Your task to perform on an android device: open app "Venmo" (install if not already installed) Image 0: 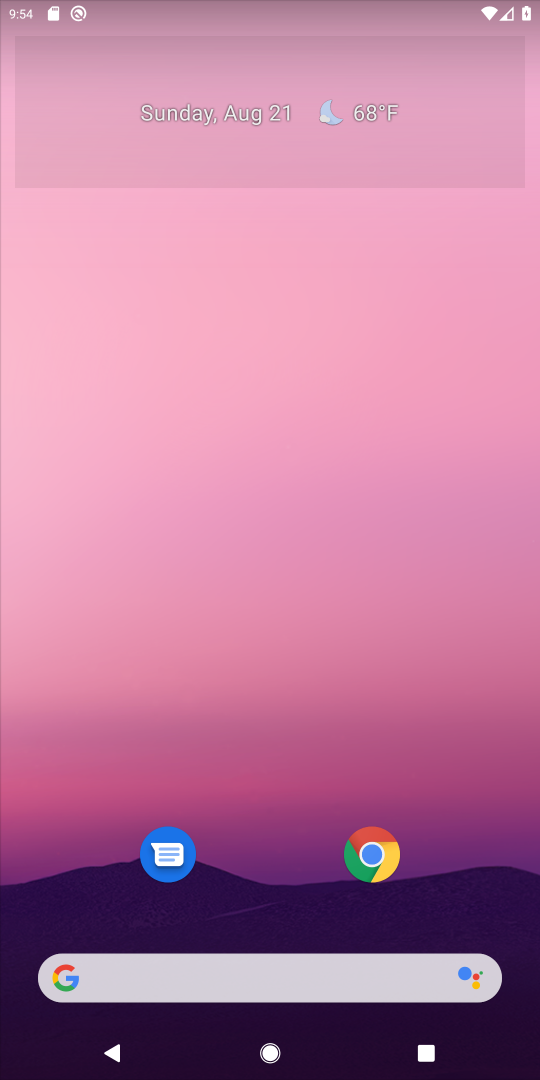
Step 0: drag from (256, 454) to (275, 313)
Your task to perform on an android device: open app "Venmo" (install if not already installed) Image 1: 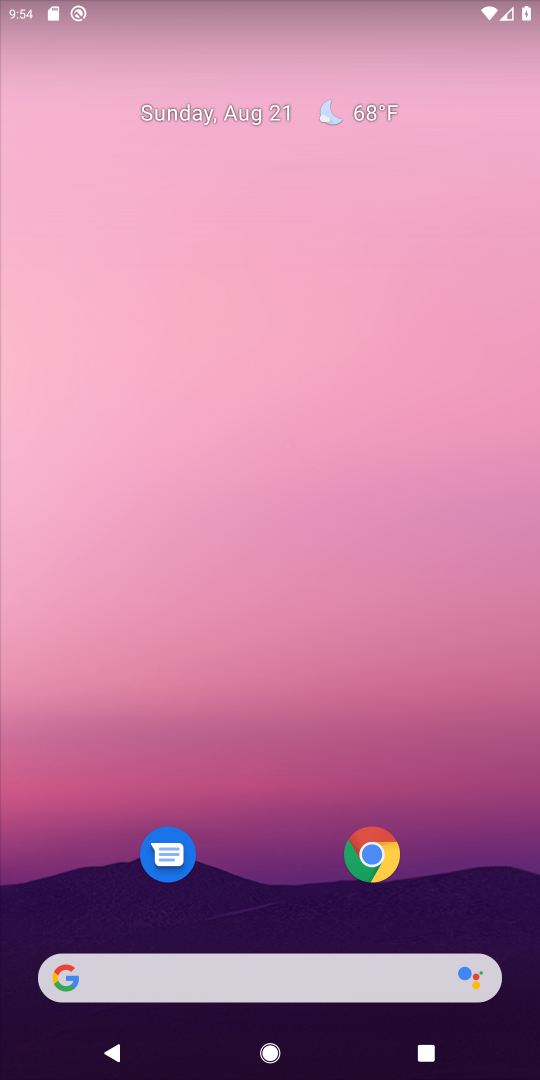
Step 1: drag from (283, 888) to (266, 66)
Your task to perform on an android device: open app "Venmo" (install if not already installed) Image 2: 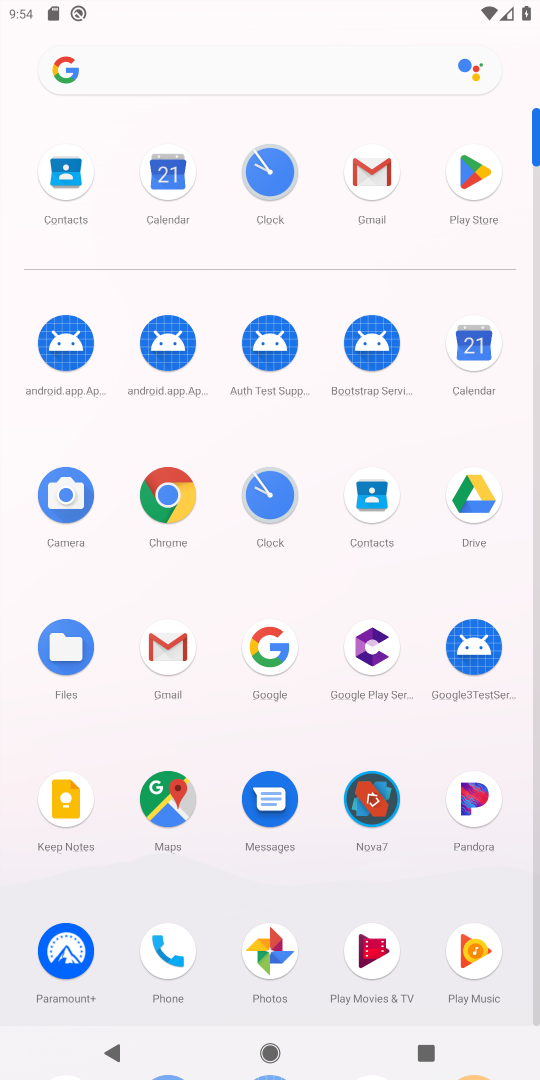
Step 2: click (483, 197)
Your task to perform on an android device: open app "Venmo" (install if not already installed) Image 3: 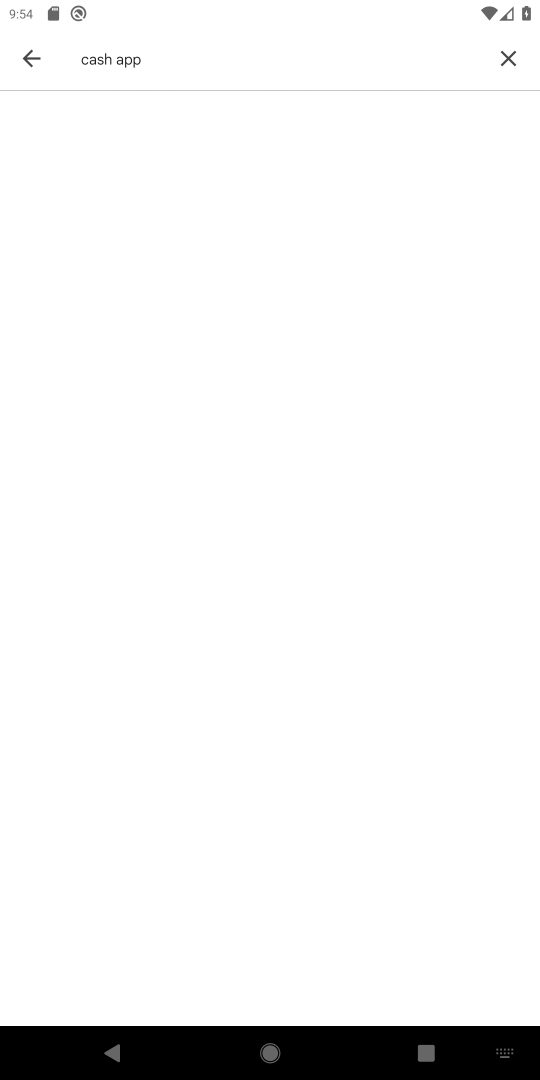
Step 3: click (504, 60)
Your task to perform on an android device: open app "Venmo" (install if not already installed) Image 4: 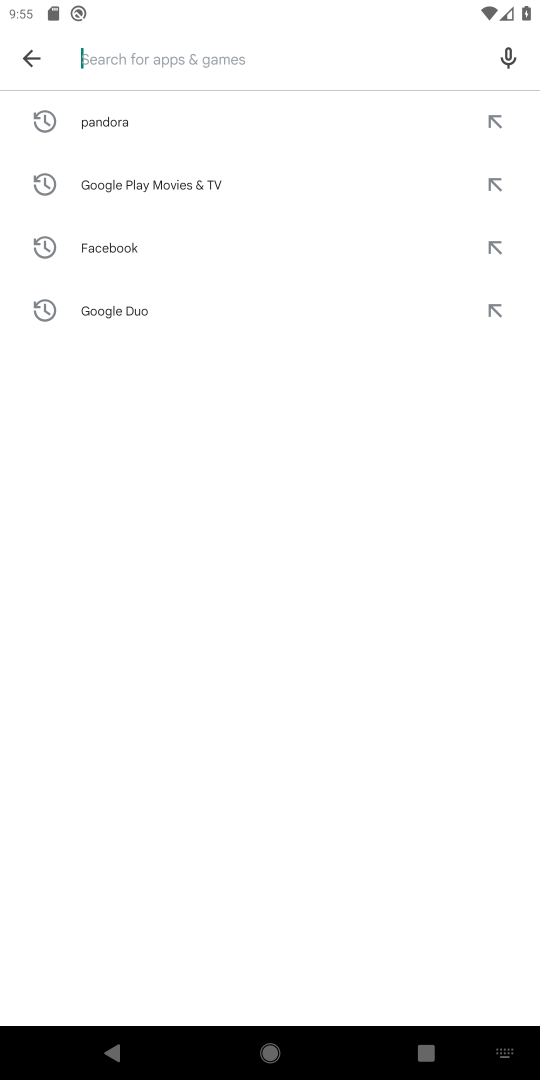
Step 4: type "venmo"
Your task to perform on an android device: open app "Venmo" (install if not already installed) Image 5: 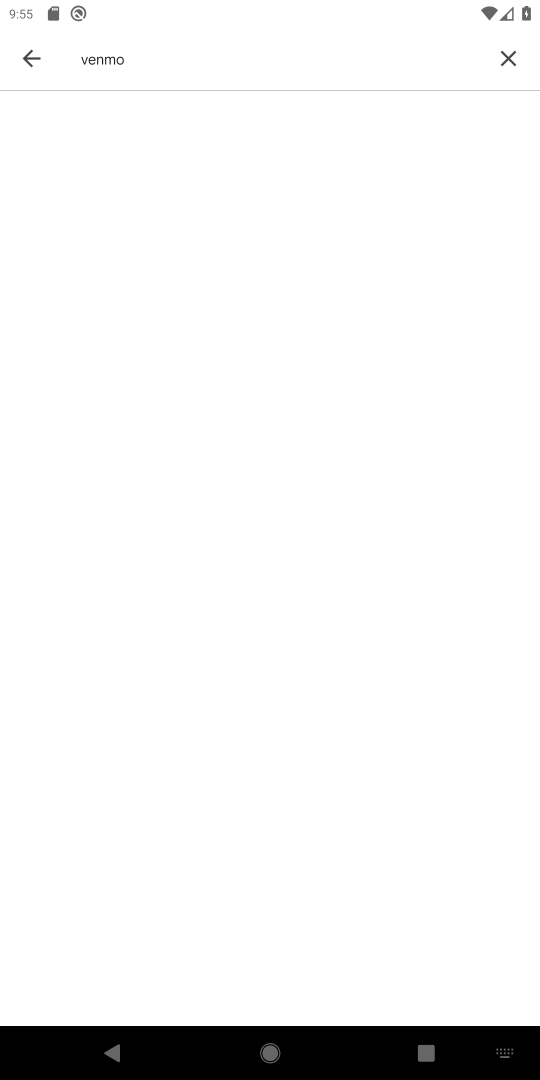
Step 5: task complete